Your task to perform on an android device: Search for sushi restaurants on Maps Image 0: 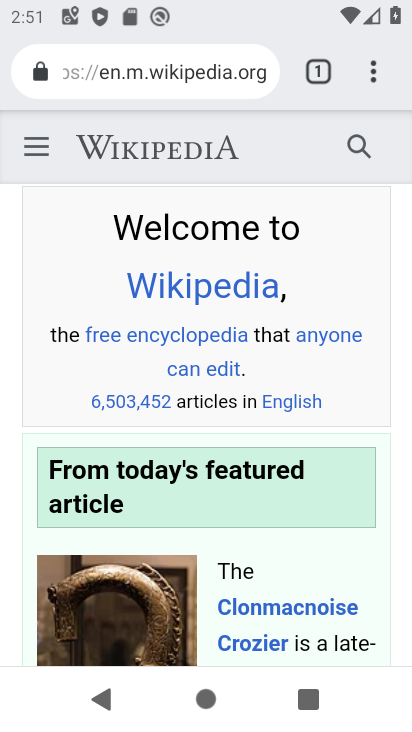
Step 0: press home button
Your task to perform on an android device: Search for sushi restaurants on Maps Image 1: 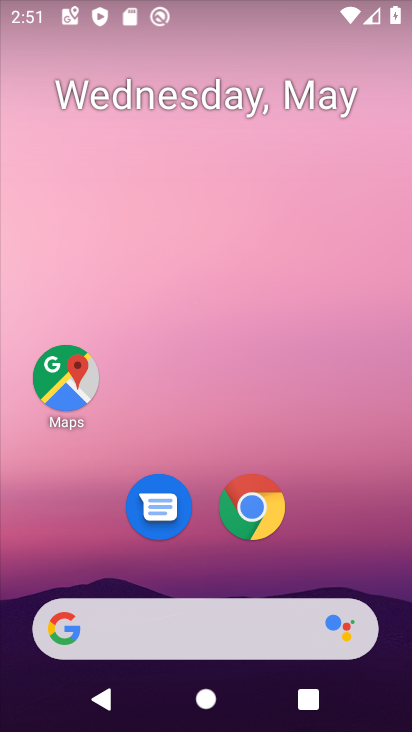
Step 1: click (82, 377)
Your task to perform on an android device: Search for sushi restaurants on Maps Image 2: 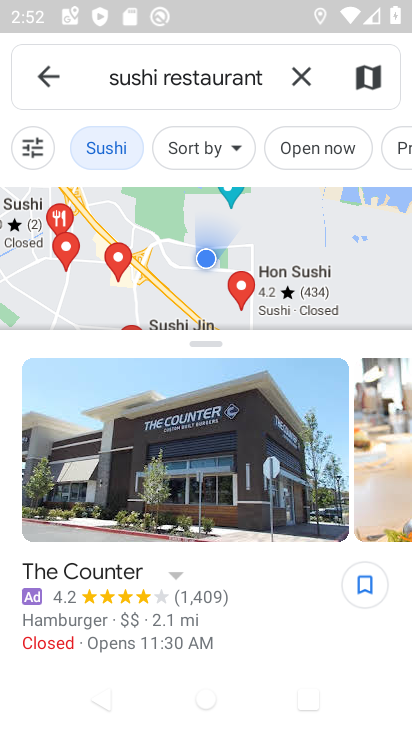
Step 2: task complete